Your task to perform on an android device: set an alarm Image 0: 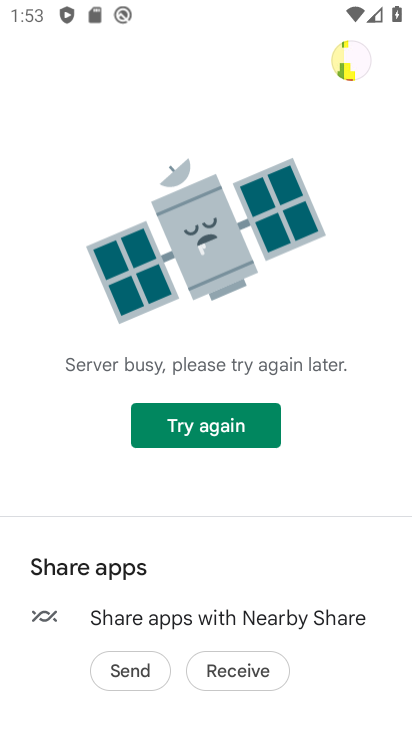
Step 0: task impossible